Your task to perform on an android device: Go to CNN.com Image 0: 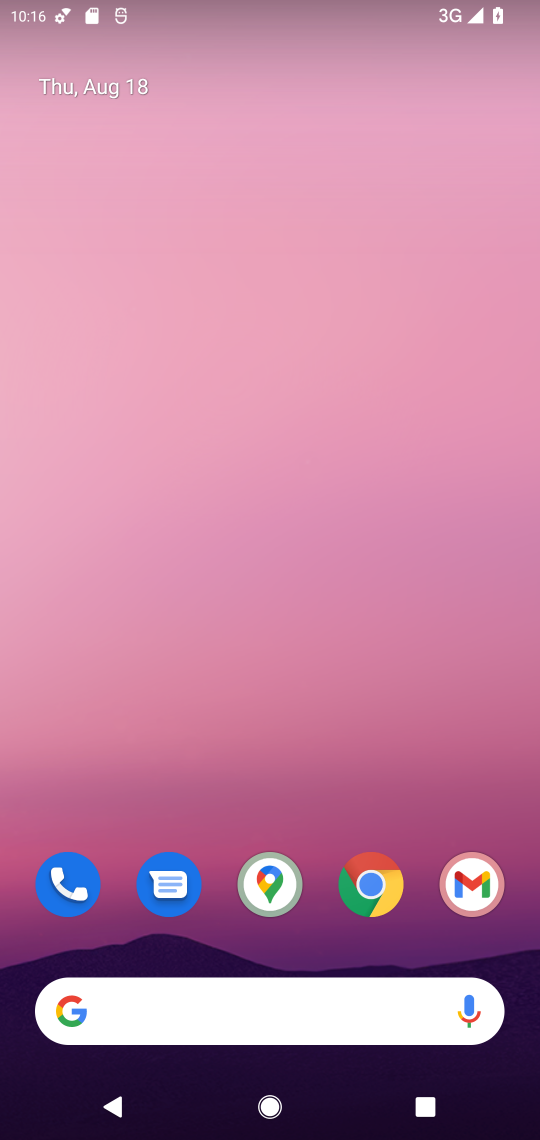
Step 0: click (284, 992)
Your task to perform on an android device: Go to CNN.com Image 1: 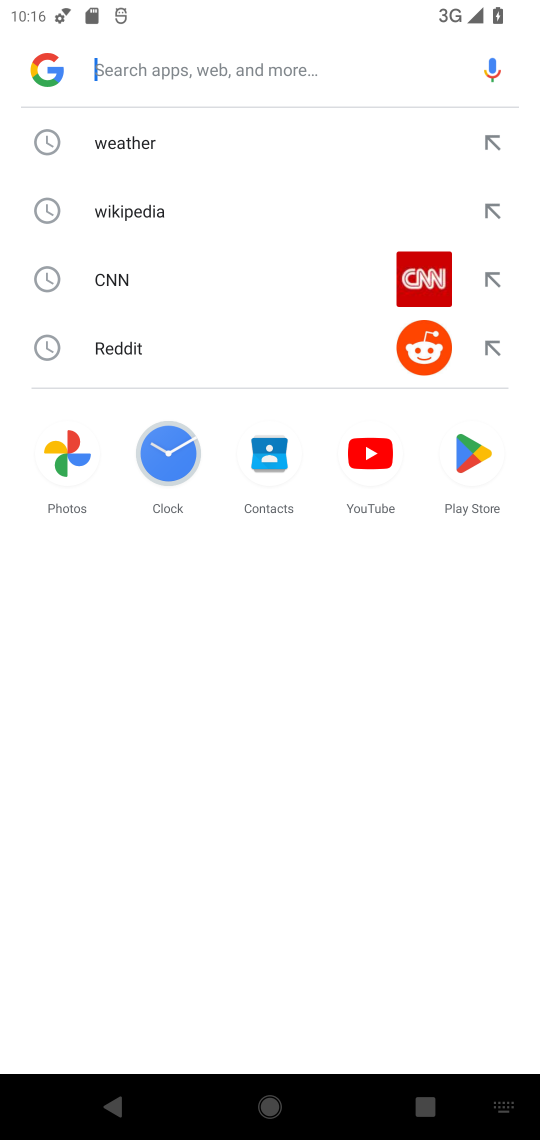
Step 1: click (191, 270)
Your task to perform on an android device: Go to CNN.com Image 2: 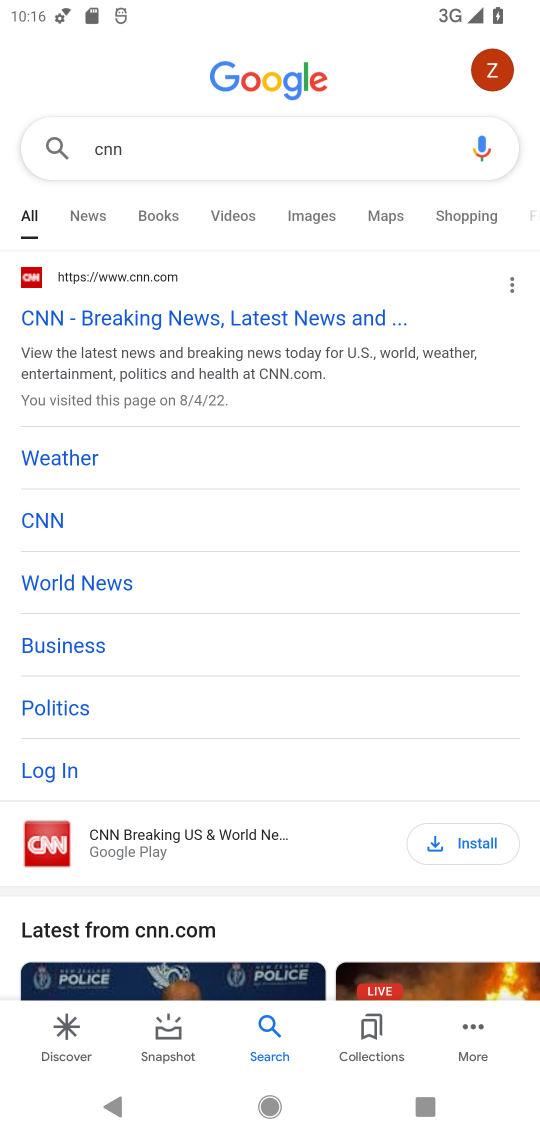
Step 2: click (293, 313)
Your task to perform on an android device: Go to CNN.com Image 3: 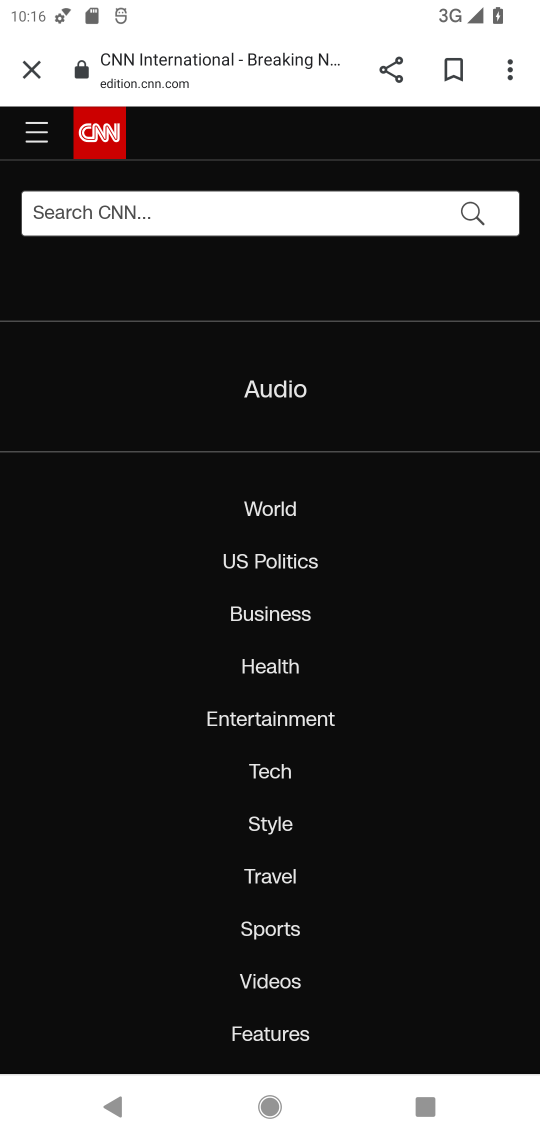
Step 3: task complete